Your task to perform on an android device: open chrome privacy settings Image 0: 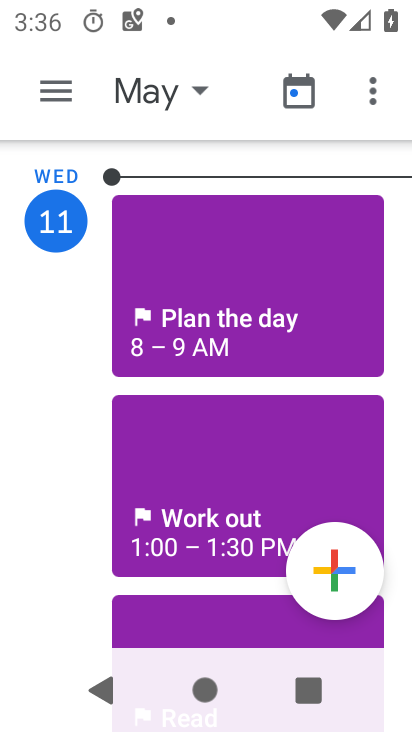
Step 0: press home button
Your task to perform on an android device: open chrome privacy settings Image 1: 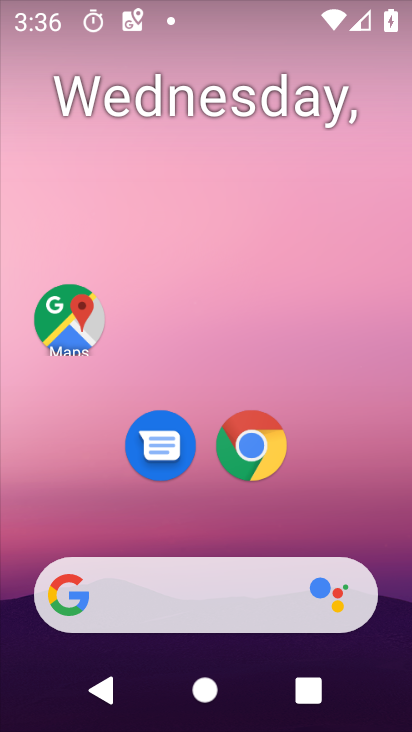
Step 1: click (247, 447)
Your task to perform on an android device: open chrome privacy settings Image 2: 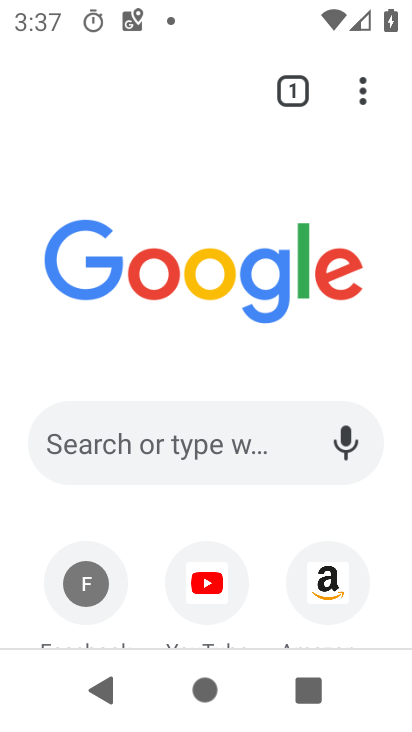
Step 2: click (350, 89)
Your task to perform on an android device: open chrome privacy settings Image 3: 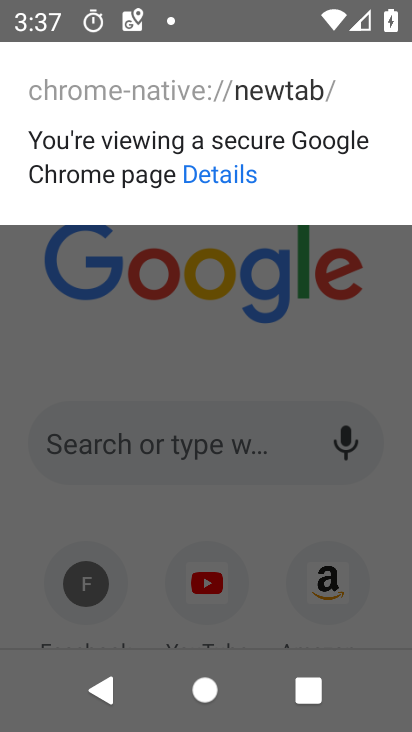
Step 3: click (296, 237)
Your task to perform on an android device: open chrome privacy settings Image 4: 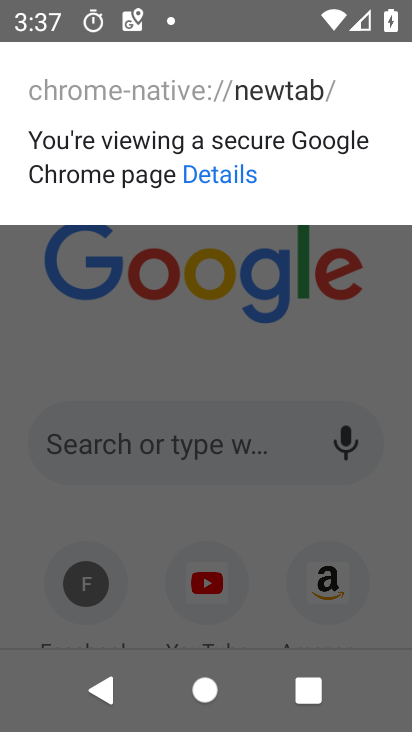
Step 4: click (296, 237)
Your task to perform on an android device: open chrome privacy settings Image 5: 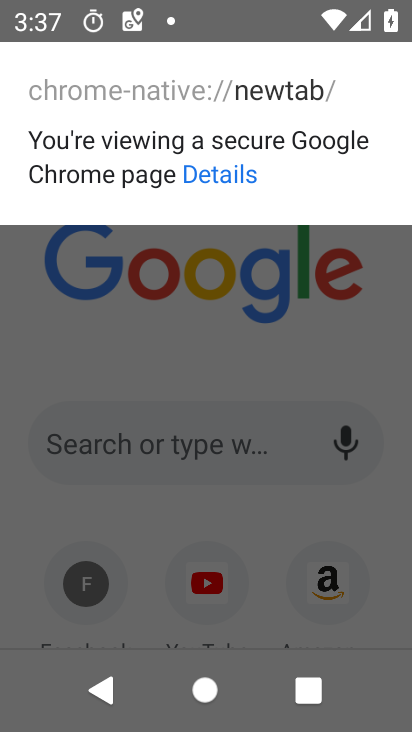
Step 5: click (296, 237)
Your task to perform on an android device: open chrome privacy settings Image 6: 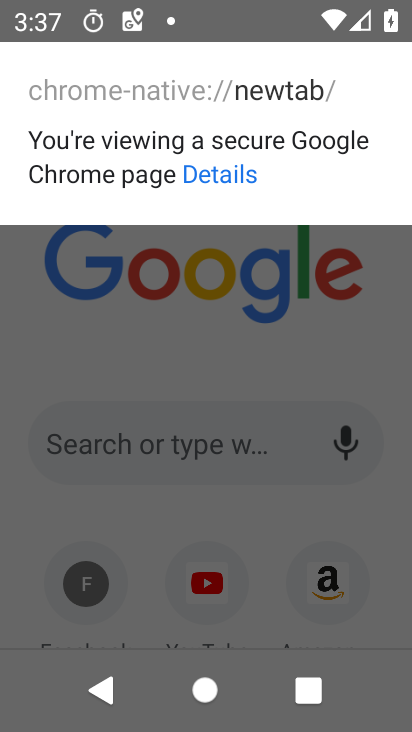
Step 6: click (309, 197)
Your task to perform on an android device: open chrome privacy settings Image 7: 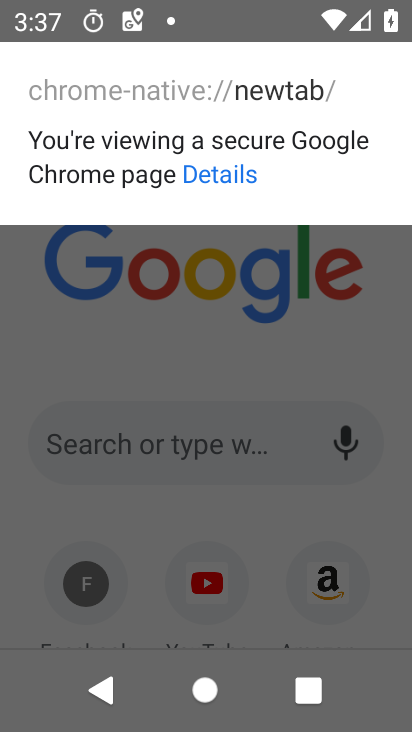
Step 7: click (8, 215)
Your task to perform on an android device: open chrome privacy settings Image 8: 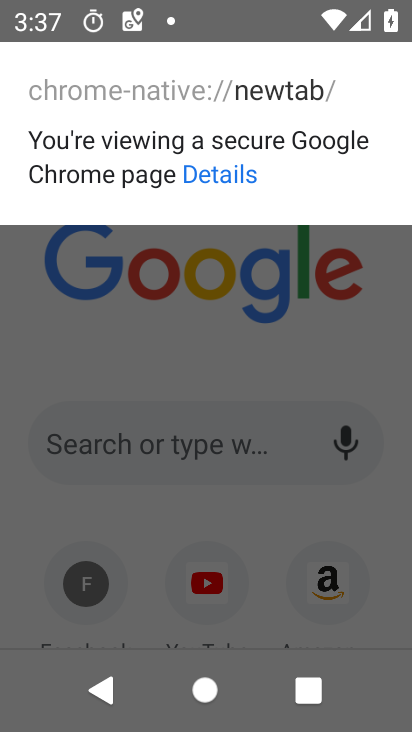
Step 8: click (96, 312)
Your task to perform on an android device: open chrome privacy settings Image 9: 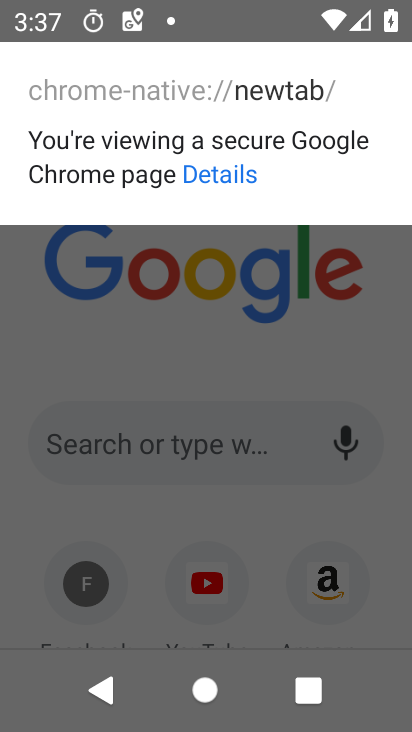
Step 9: click (96, 312)
Your task to perform on an android device: open chrome privacy settings Image 10: 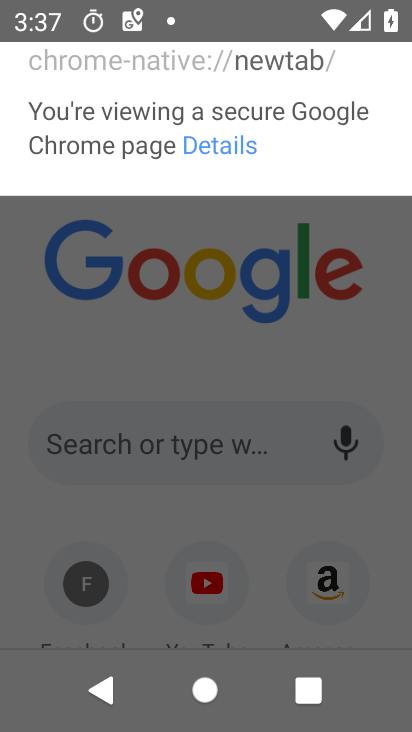
Step 10: click (96, 312)
Your task to perform on an android device: open chrome privacy settings Image 11: 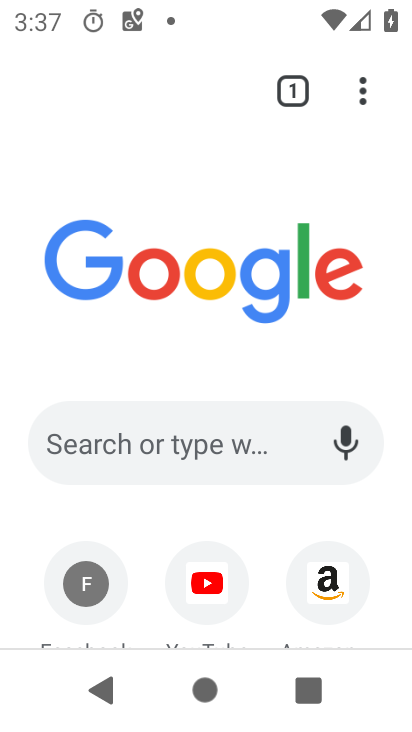
Step 11: click (96, 312)
Your task to perform on an android device: open chrome privacy settings Image 12: 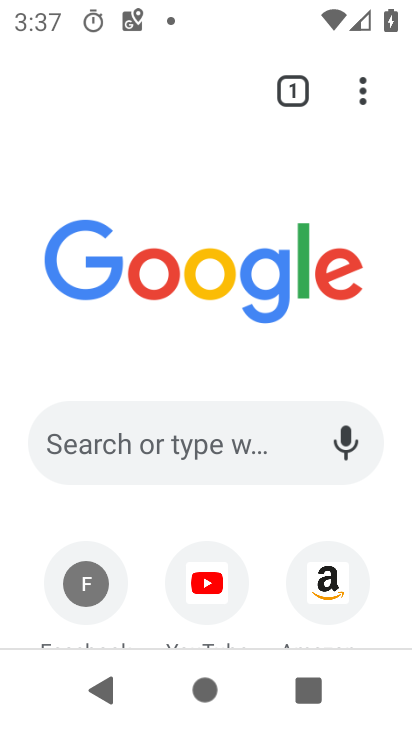
Step 12: click (353, 87)
Your task to perform on an android device: open chrome privacy settings Image 13: 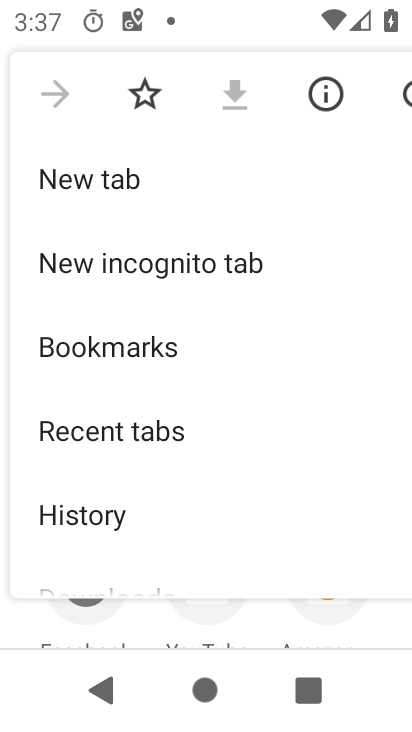
Step 13: drag from (174, 477) to (194, 39)
Your task to perform on an android device: open chrome privacy settings Image 14: 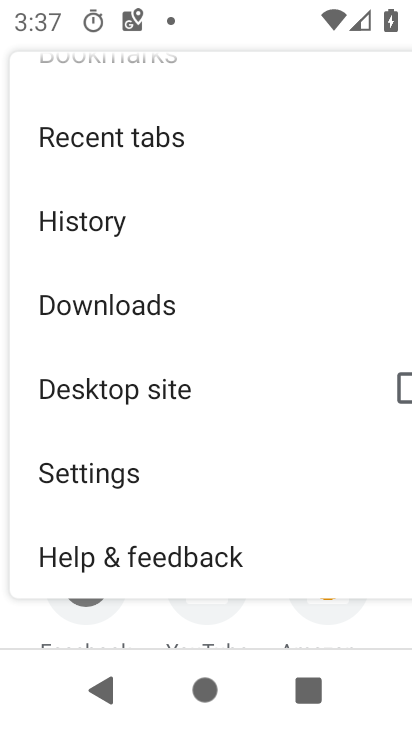
Step 14: click (104, 467)
Your task to perform on an android device: open chrome privacy settings Image 15: 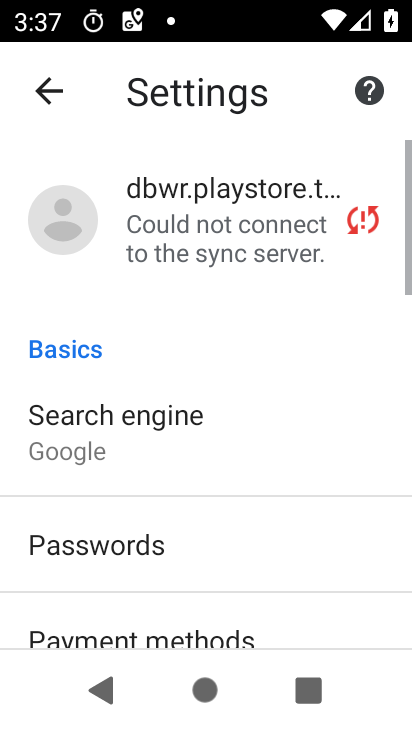
Step 15: drag from (176, 436) to (215, 0)
Your task to perform on an android device: open chrome privacy settings Image 16: 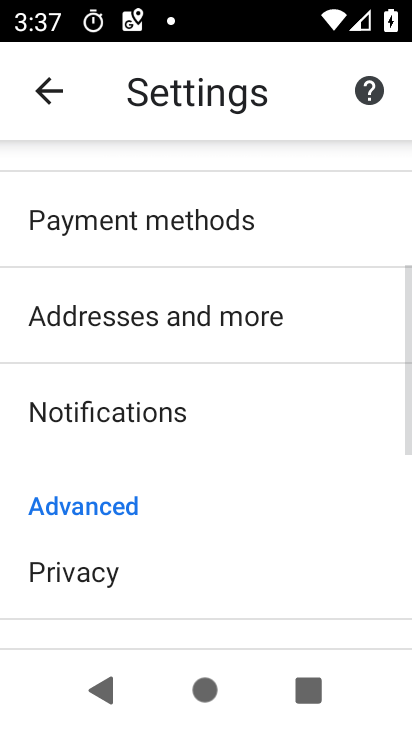
Step 16: click (158, 557)
Your task to perform on an android device: open chrome privacy settings Image 17: 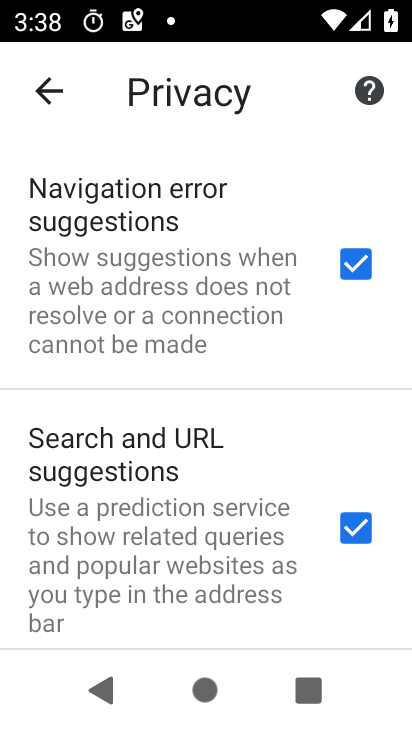
Step 17: task complete